Your task to perform on an android device: Check the news Image 0: 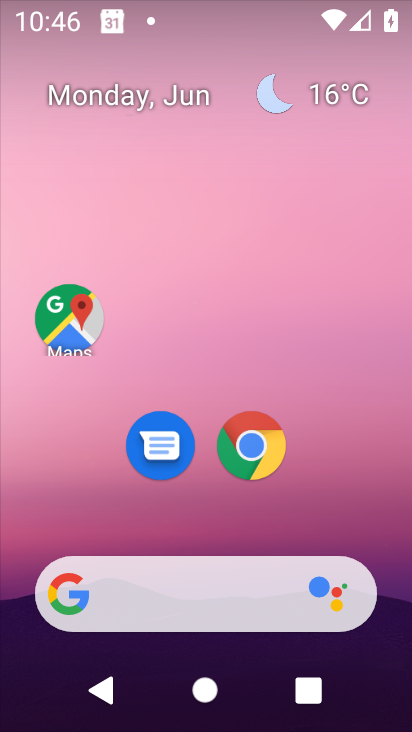
Step 0: press home button
Your task to perform on an android device: Check the news Image 1: 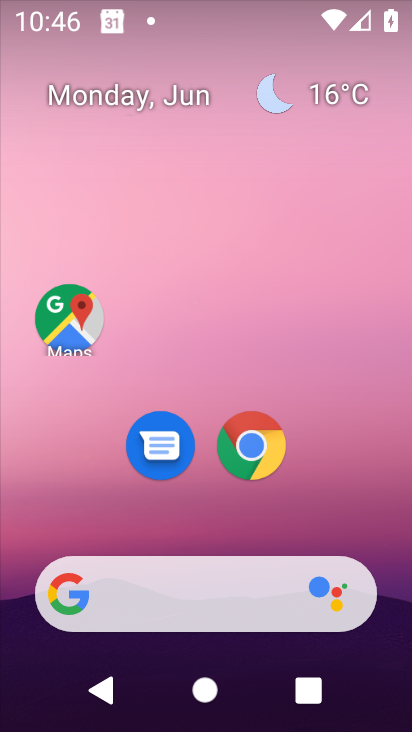
Step 1: click (63, 590)
Your task to perform on an android device: Check the news Image 2: 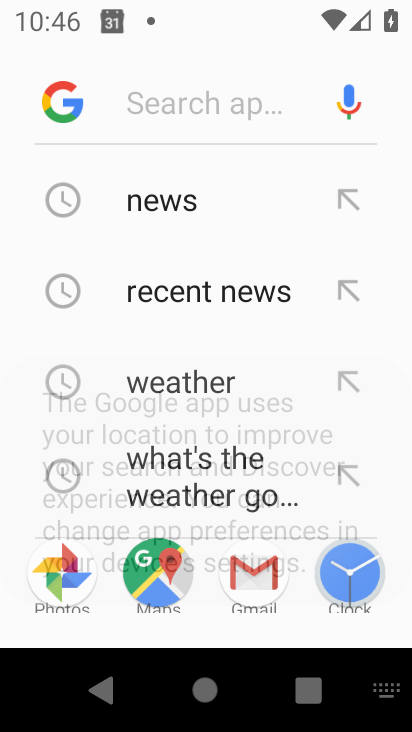
Step 2: click (168, 198)
Your task to perform on an android device: Check the news Image 3: 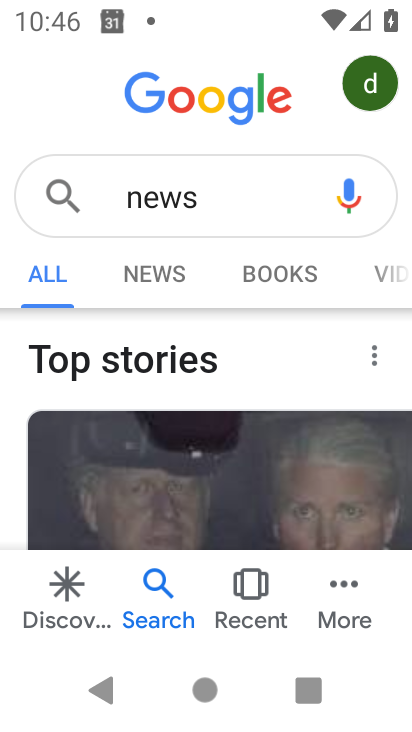
Step 3: task complete